Your task to perform on an android device: Search for Mexican restaurants on Maps Image 0: 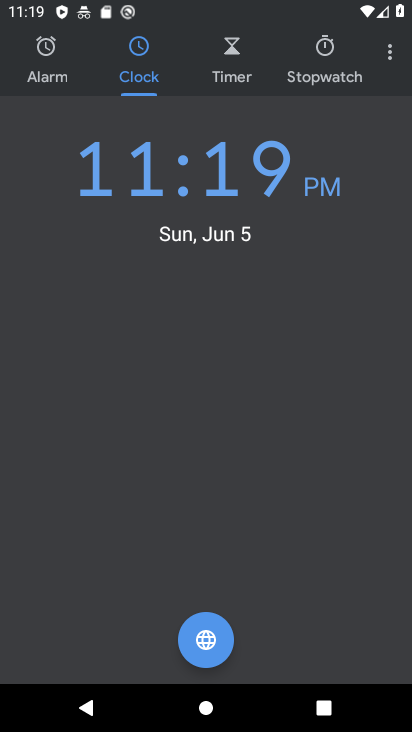
Step 0: press home button
Your task to perform on an android device: Search for Mexican restaurants on Maps Image 1: 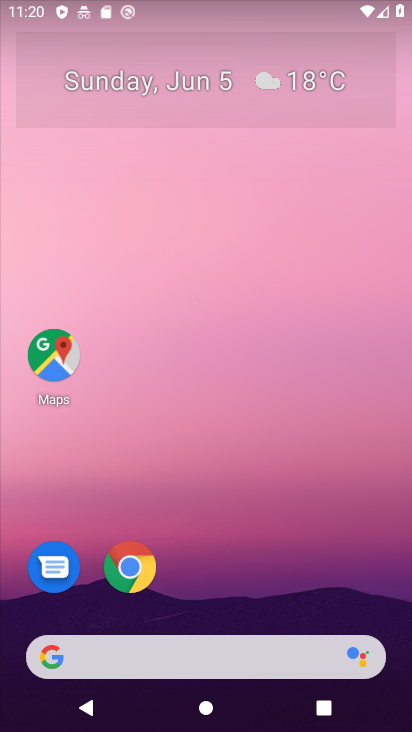
Step 1: click (48, 348)
Your task to perform on an android device: Search for Mexican restaurants on Maps Image 2: 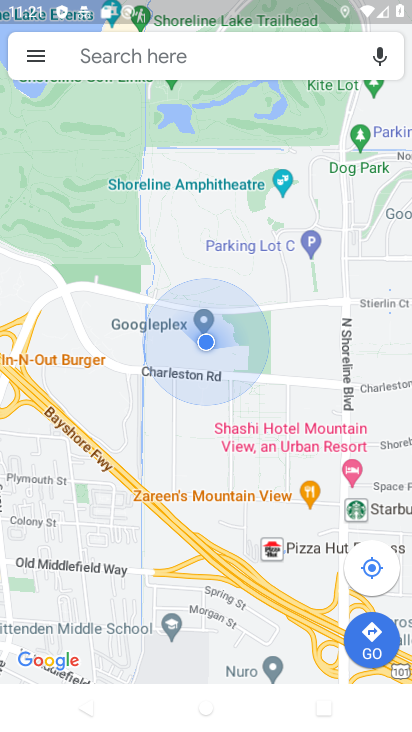
Step 2: click (182, 52)
Your task to perform on an android device: Search for Mexican restaurants on Maps Image 3: 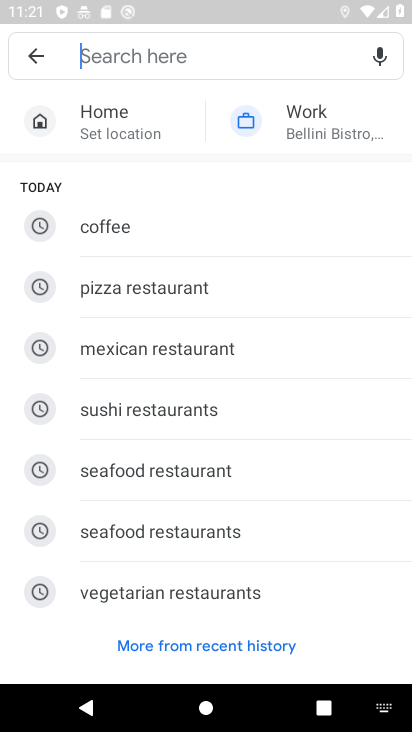
Step 3: click (162, 345)
Your task to perform on an android device: Search for Mexican restaurants on Maps Image 4: 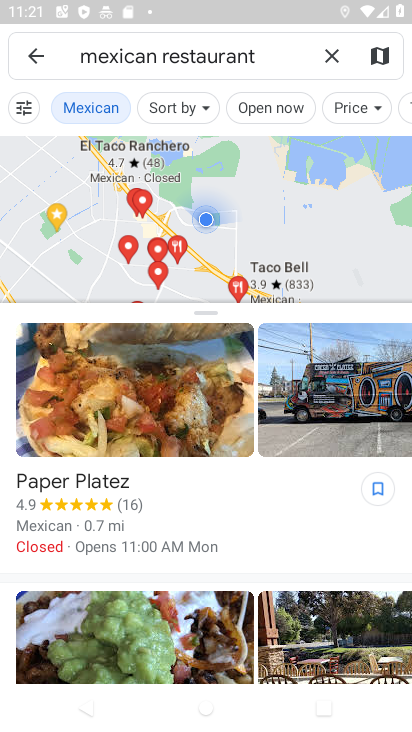
Step 4: task complete